Your task to perform on an android device: turn on sleep mode Image 0: 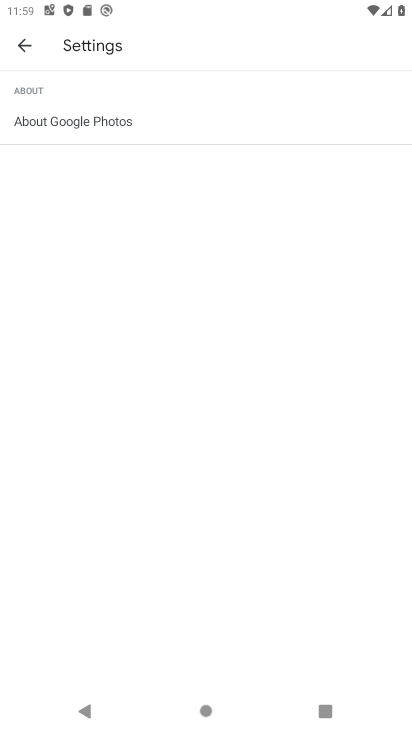
Step 0: press home button
Your task to perform on an android device: turn on sleep mode Image 1: 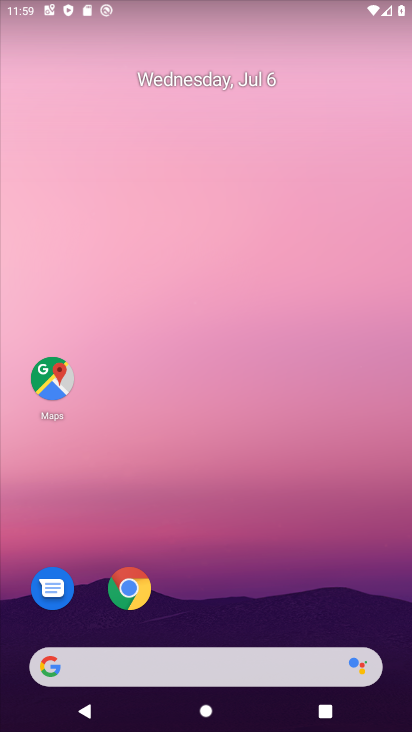
Step 1: click (233, 710)
Your task to perform on an android device: turn on sleep mode Image 2: 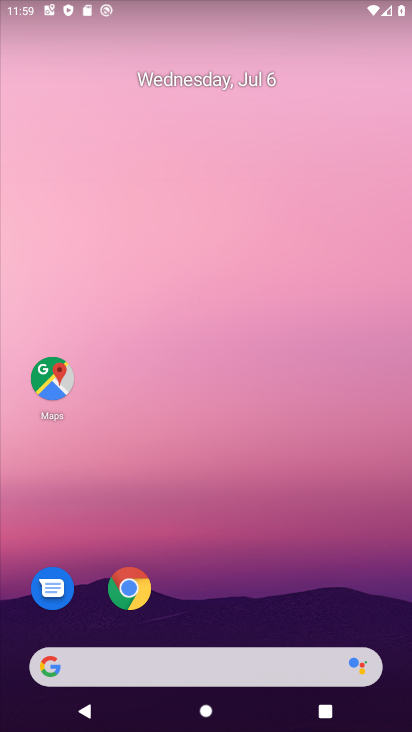
Step 2: drag from (230, 251) to (230, 124)
Your task to perform on an android device: turn on sleep mode Image 3: 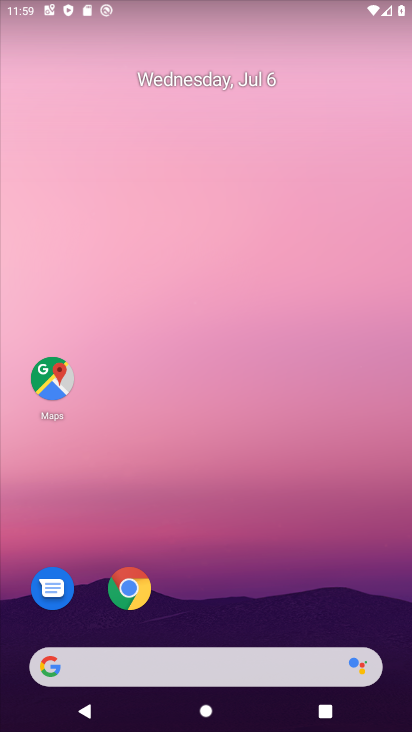
Step 3: click (262, 710)
Your task to perform on an android device: turn on sleep mode Image 4: 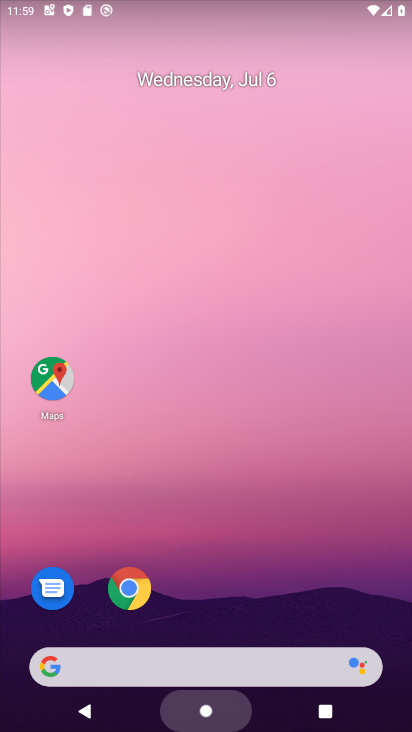
Step 4: drag from (237, 123) to (234, 31)
Your task to perform on an android device: turn on sleep mode Image 5: 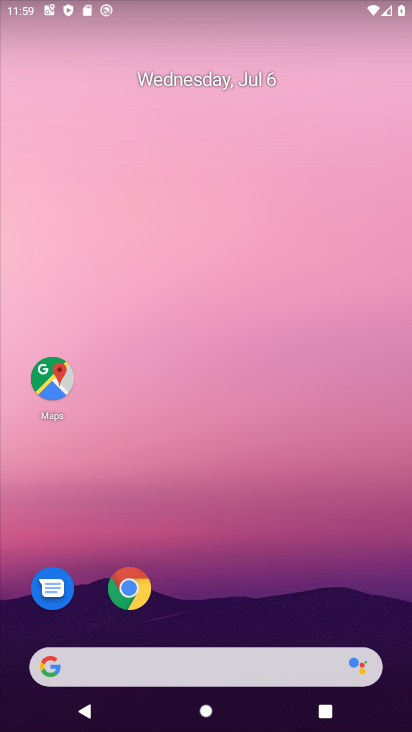
Step 5: click (257, 697)
Your task to perform on an android device: turn on sleep mode Image 6: 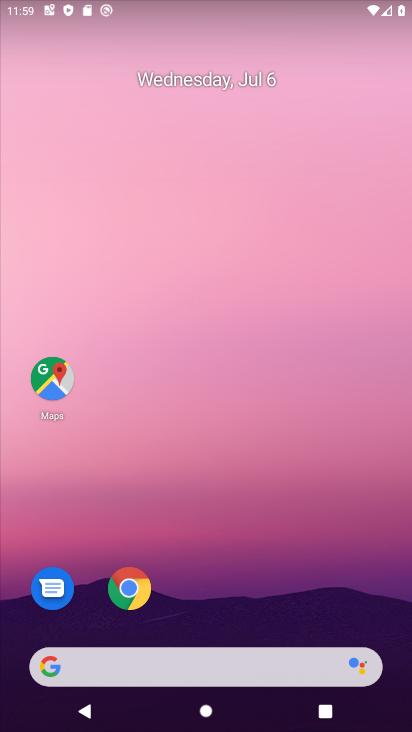
Step 6: click (257, 16)
Your task to perform on an android device: turn on sleep mode Image 7: 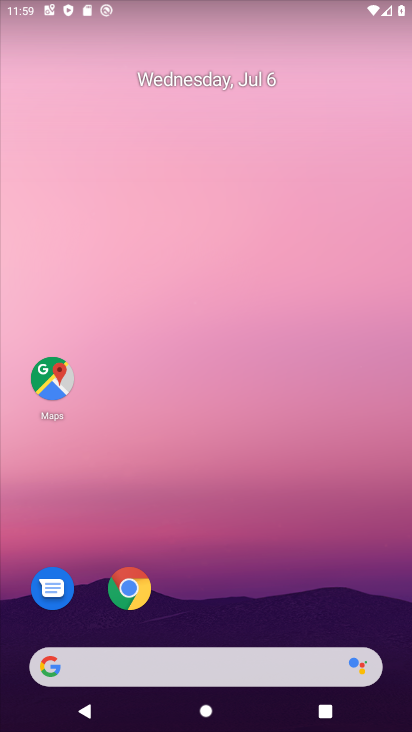
Step 7: press home button
Your task to perform on an android device: turn on sleep mode Image 8: 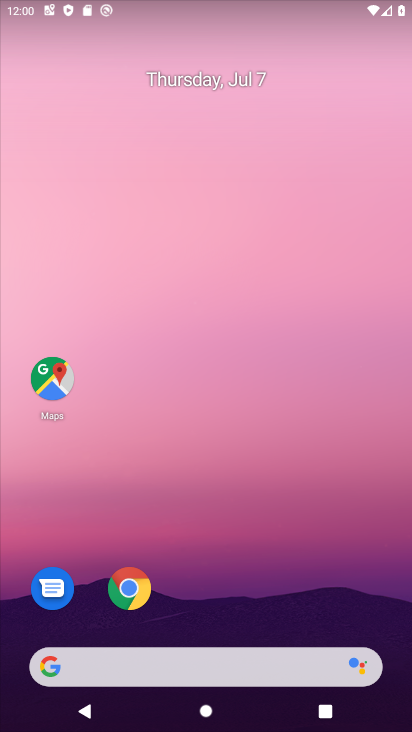
Step 8: drag from (245, 718) to (231, 541)
Your task to perform on an android device: turn on sleep mode Image 9: 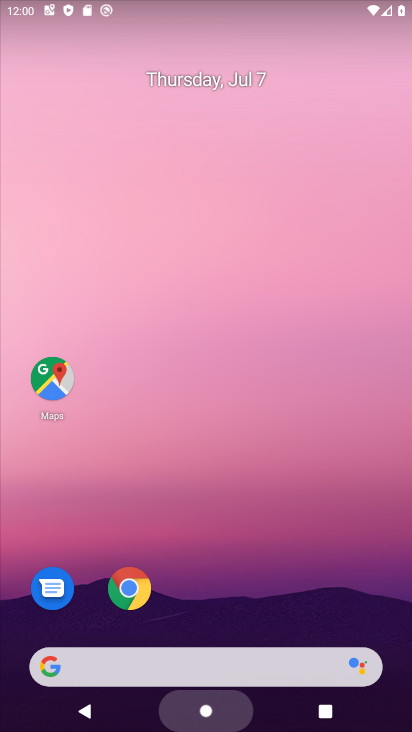
Step 9: click (230, 105)
Your task to perform on an android device: turn on sleep mode Image 10: 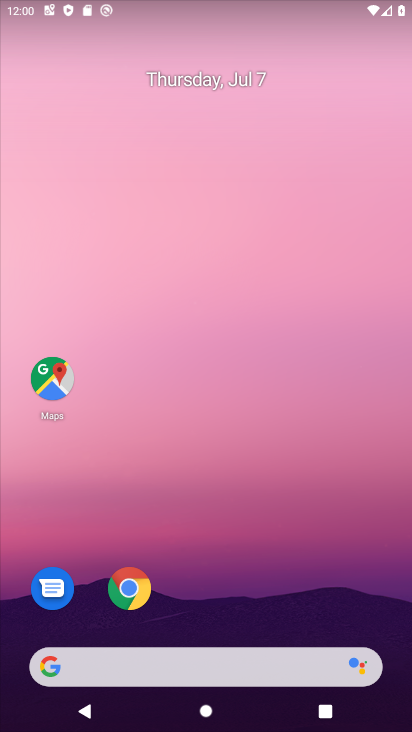
Step 10: drag from (253, 723) to (235, 61)
Your task to perform on an android device: turn on sleep mode Image 11: 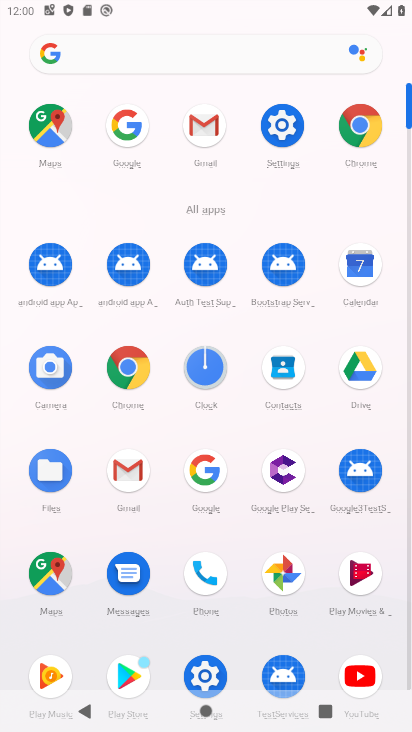
Step 11: click (287, 122)
Your task to perform on an android device: turn on sleep mode Image 12: 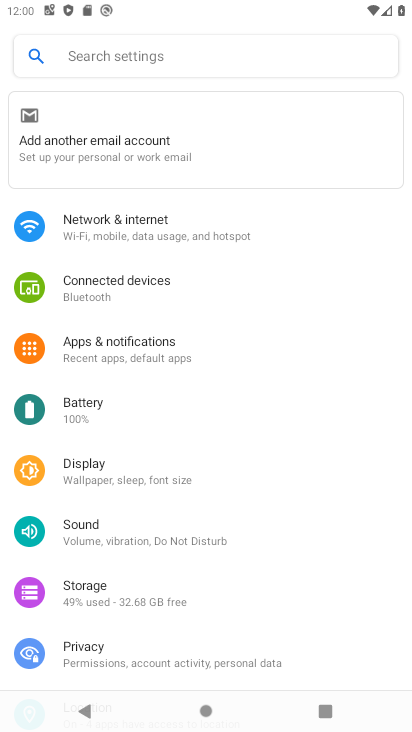
Step 12: click (155, 479)
Your task to perform on an android device: turn on sleep mode Image 13: 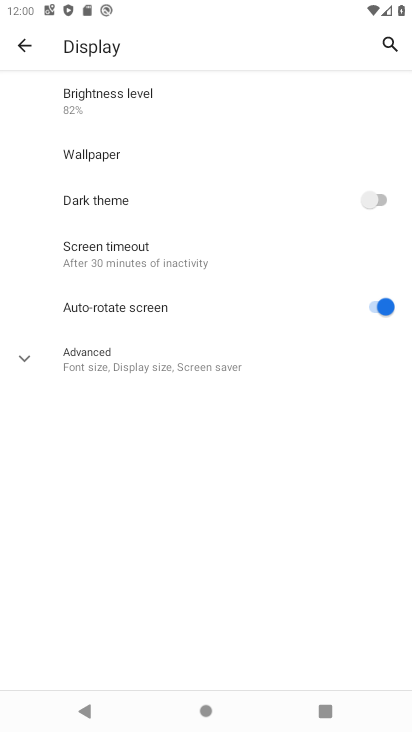
Step 13: click (28, 42)
Your task to perform on an android device: turn on sleep mode Image 14: 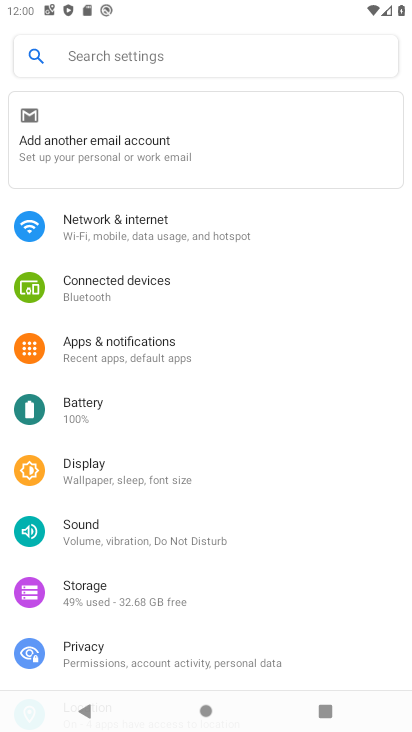
Step 14: task complete